Your task to perform on an android device: turn vacation reply on in the gmail app Image 0: 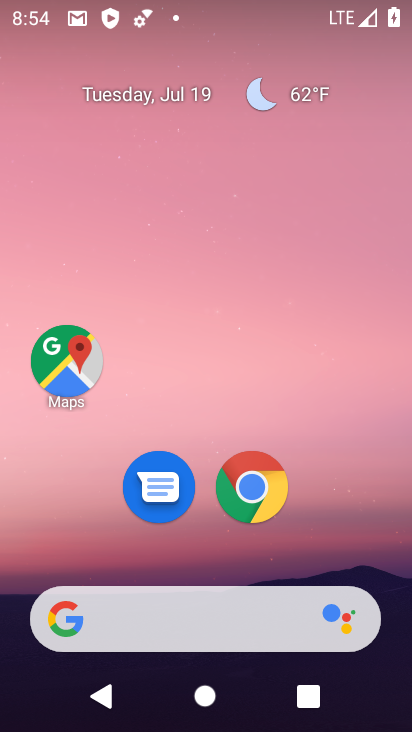
Step 0: drag from (122, 578) to (223, 0)
Your task to perform on an android device: turn vacation reply on in the gmail app Image 1: 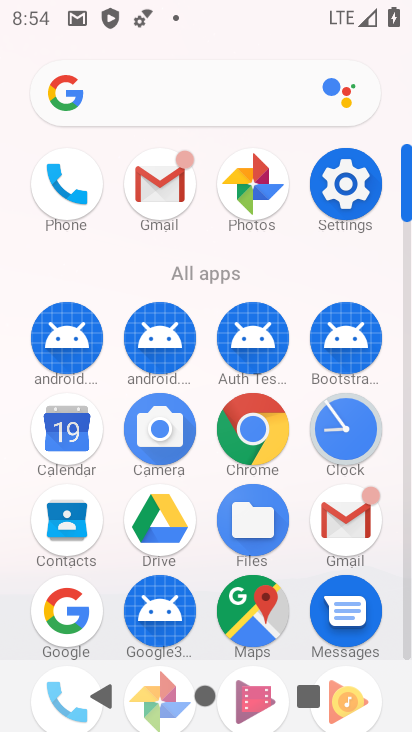
Step 1: click (174, 178)
Your task to perform on an android device: turn vacation reply on in the gmail app Image 2: 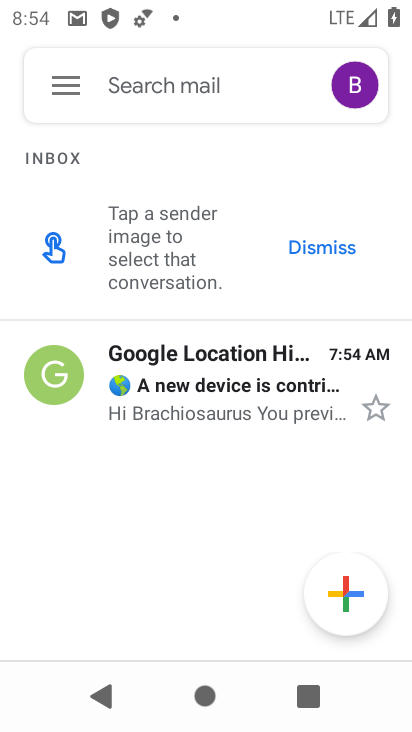
Step 2: click (73, 82)
Your task to perform on an android device: turn vacation reply on in the gmail app Image 3: 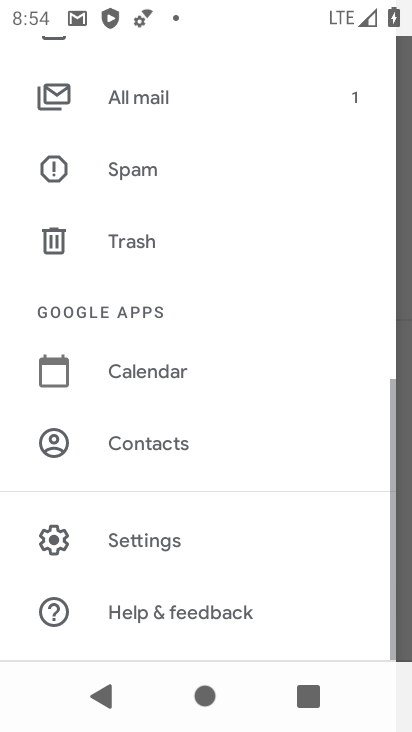
Step 3: click (201, 548)
Your task to perform on an android device: turn vacation reply on in the gmail app Image 4: 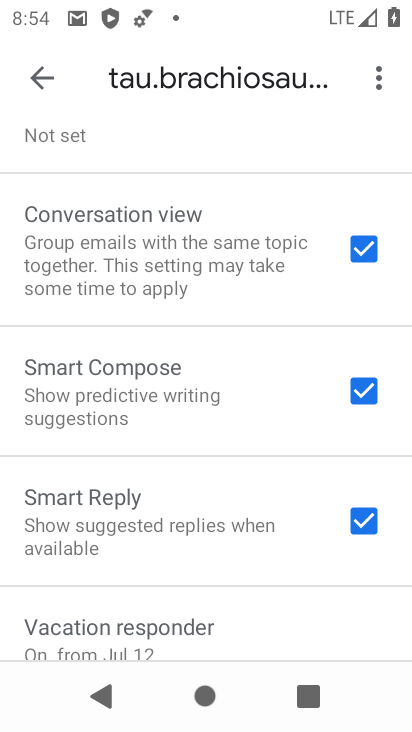
Step 4: click (182, 636)
Your task to perform on an android device: turn vacation reply on in the gmail app Image 5: 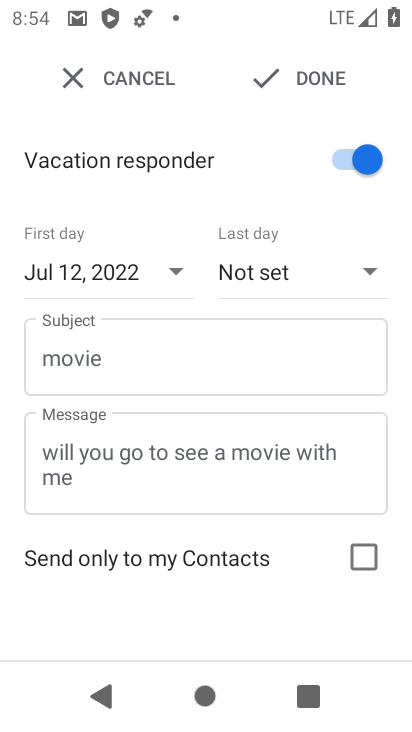
Step 5: task complete